Your task to perform on an android device: turn on the 12-hour format for clock Image 0: 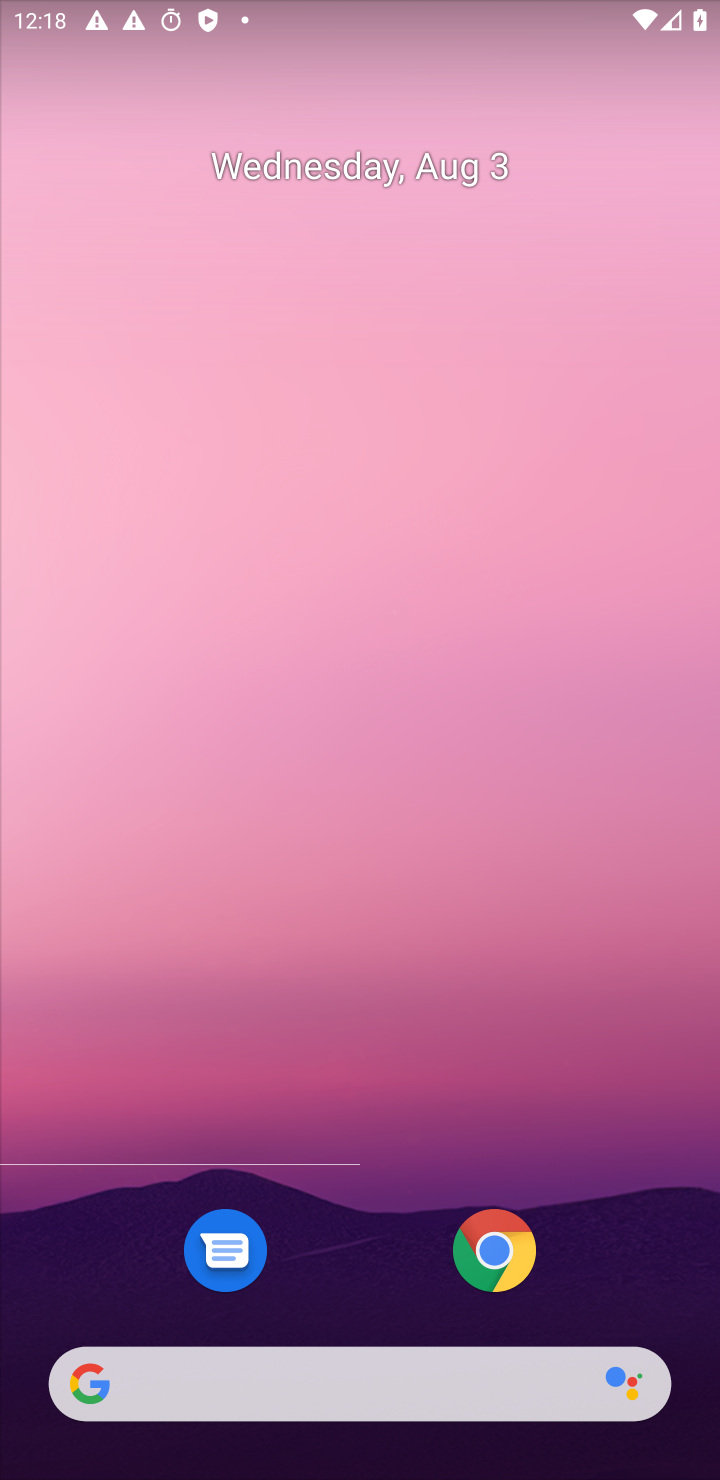
Step 0: press home button
Your task to perform on an android device: turn on the 12-hour format for clock Image 1: 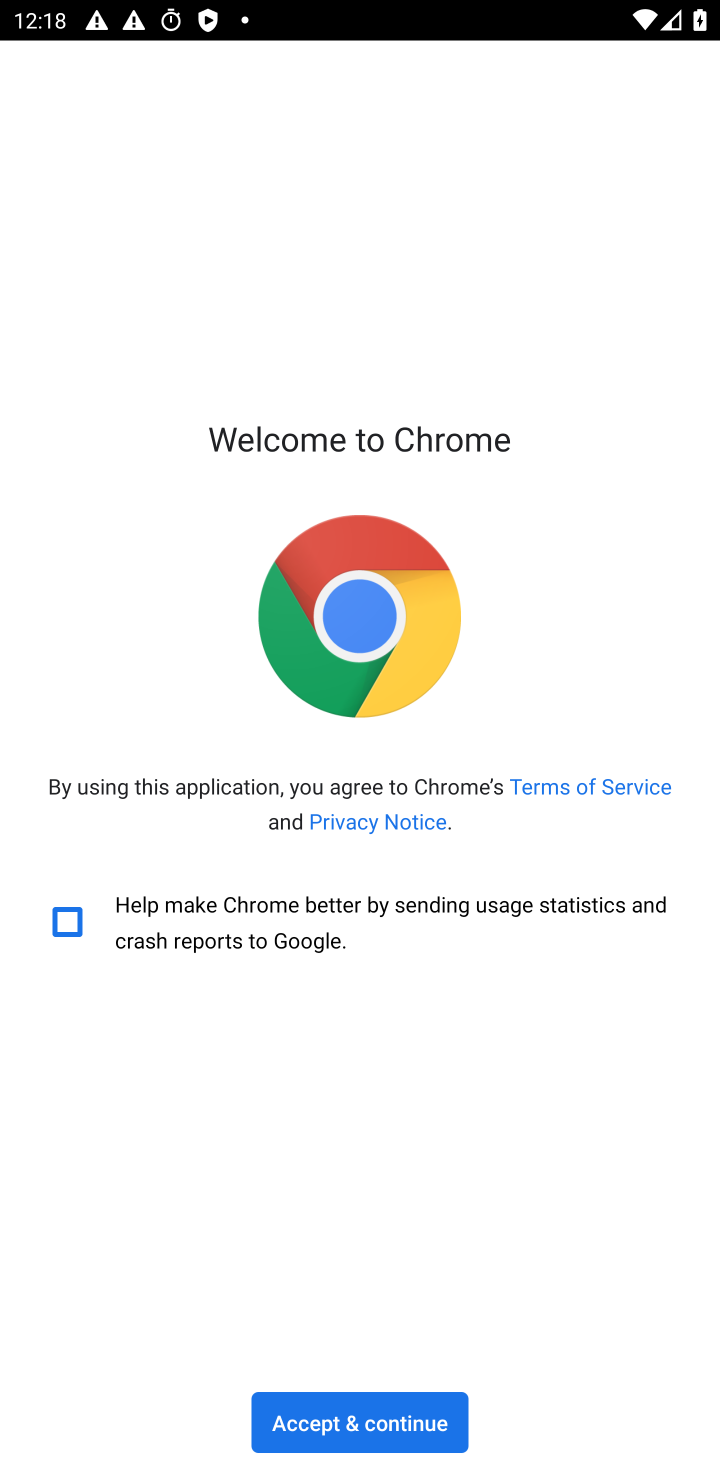
Step 1: click (336, 1396)
Your task to perform on an android device: turn on the 12-hour format for clock Image 2: 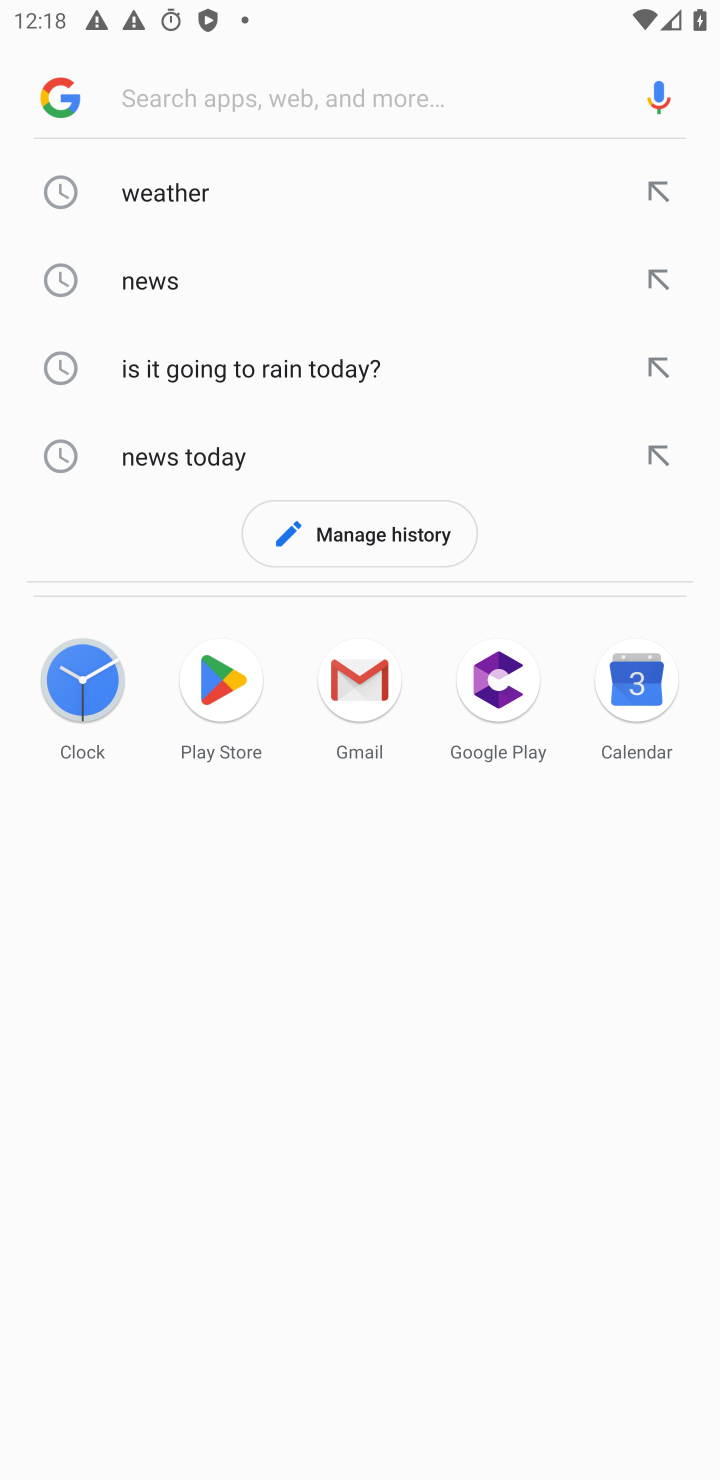
Step 2: press back button
Your task to perform on an android device: turn on the 12-hour format for clock Image 3: 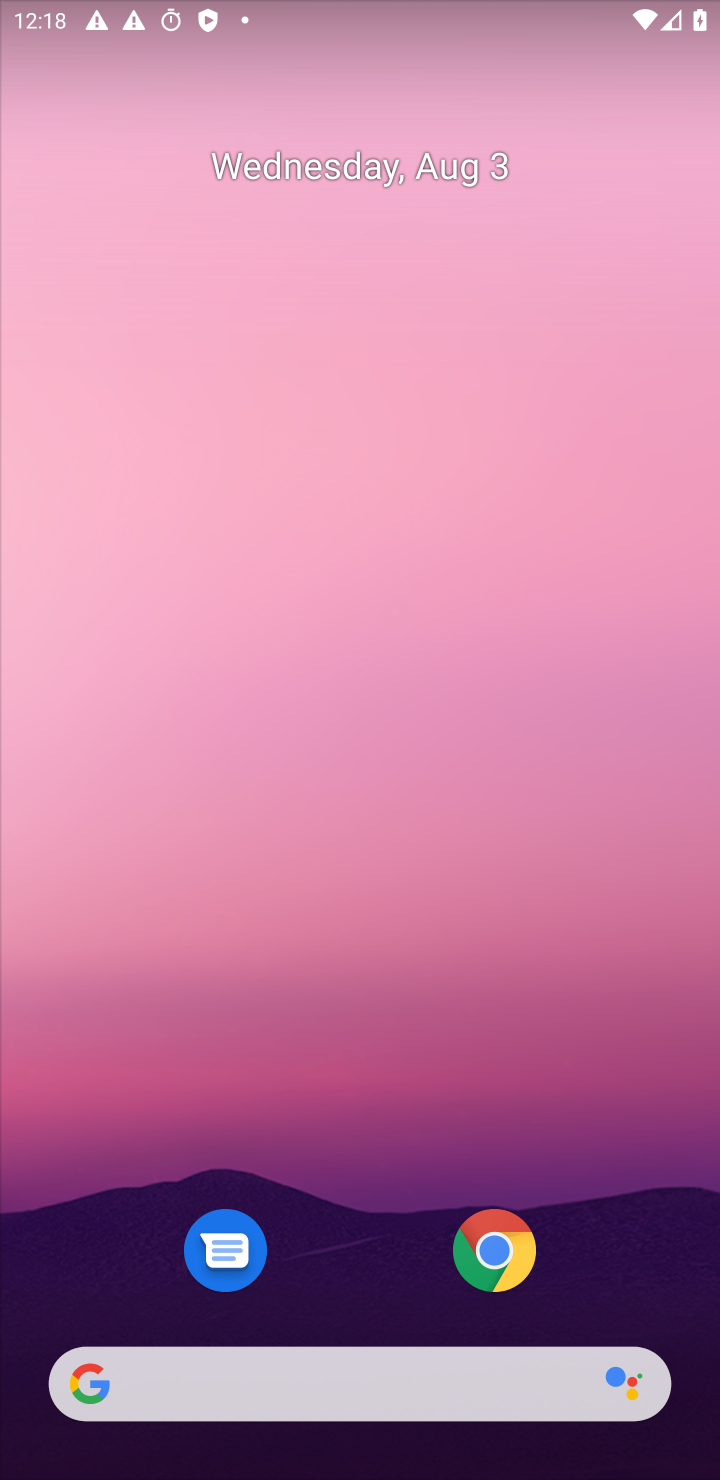
Step 3: drag from (414, 1132) to (409, 98)
Your task to perform on an android device: turn on the 12-hour format for clock Image 4: 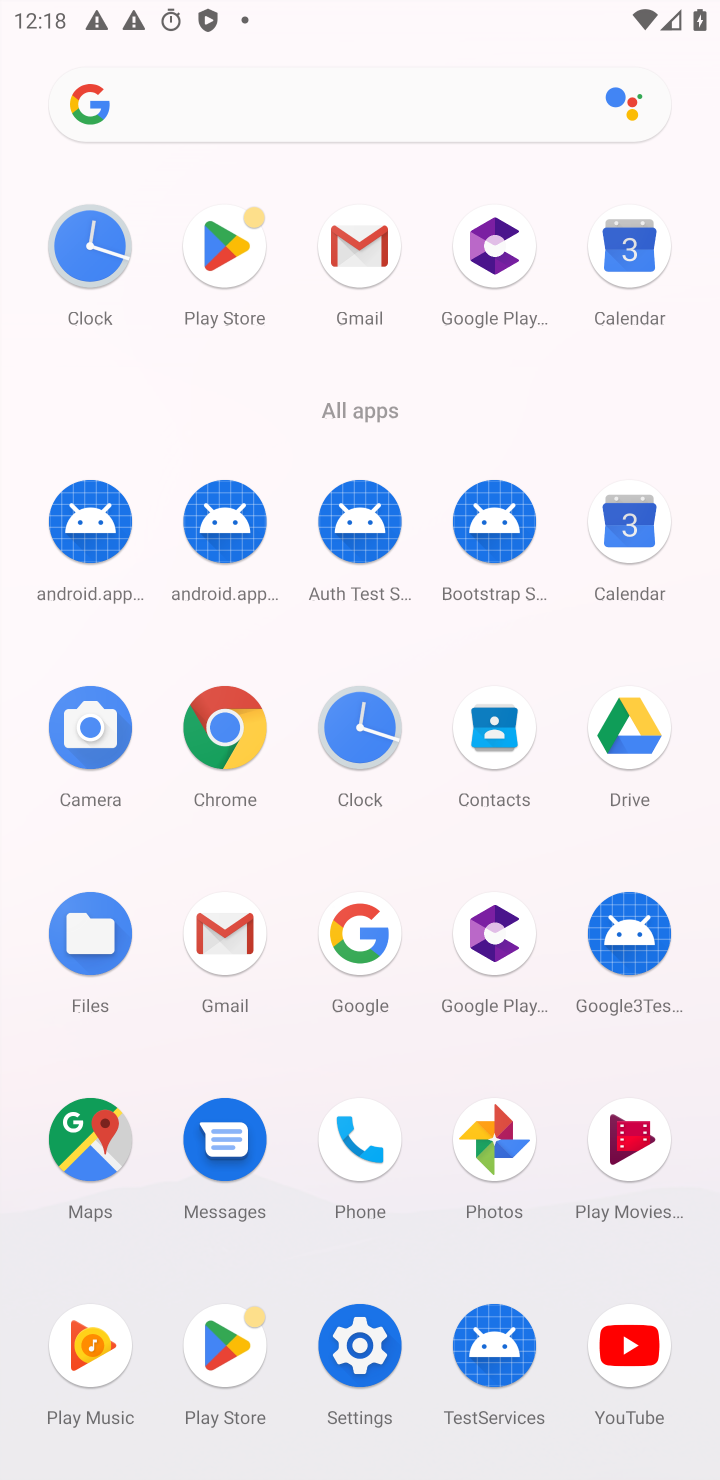
Step 4: click (354, 730)
Your task to perform on an android device: turn on the 12-hour format for clock Image 5: 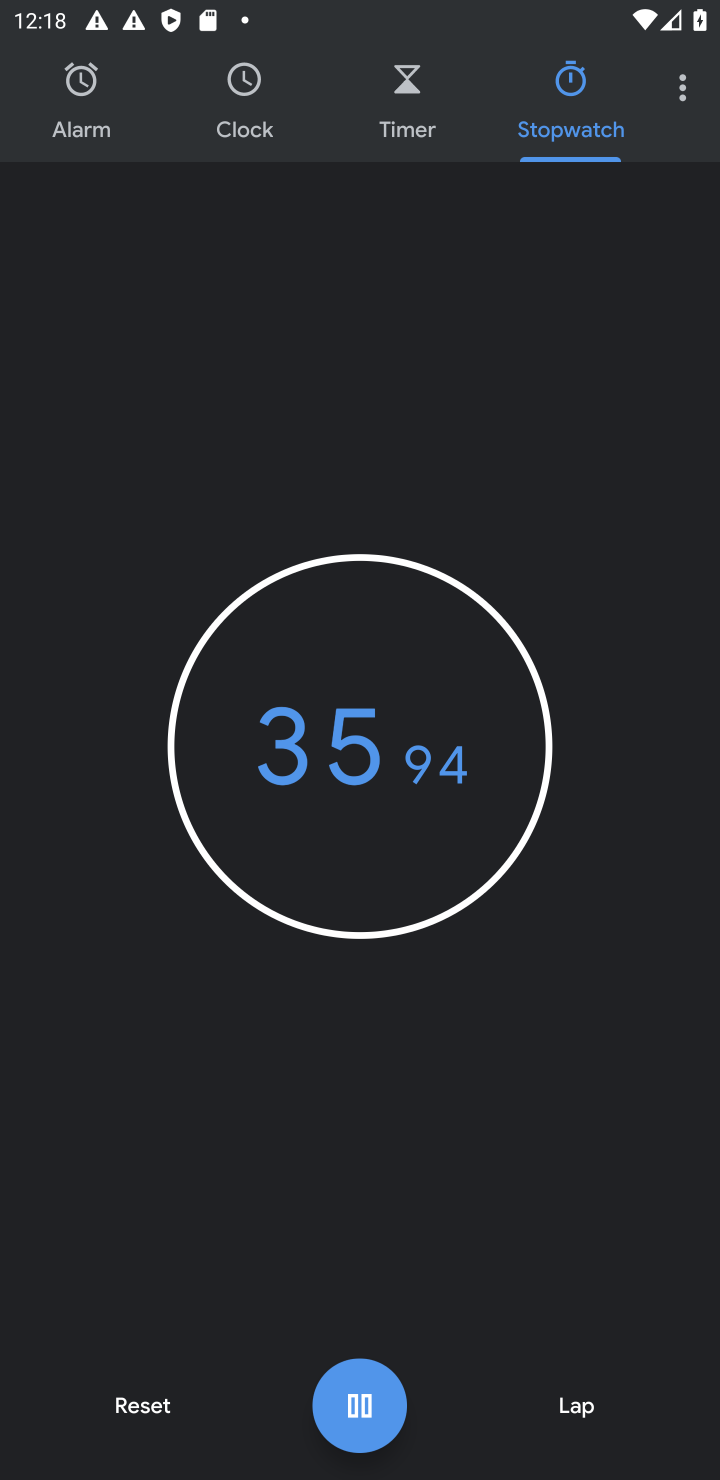
Step 5: click (670, 82)
Your task to perform on an android device: turn on the 12-hour format for clock Image 6: 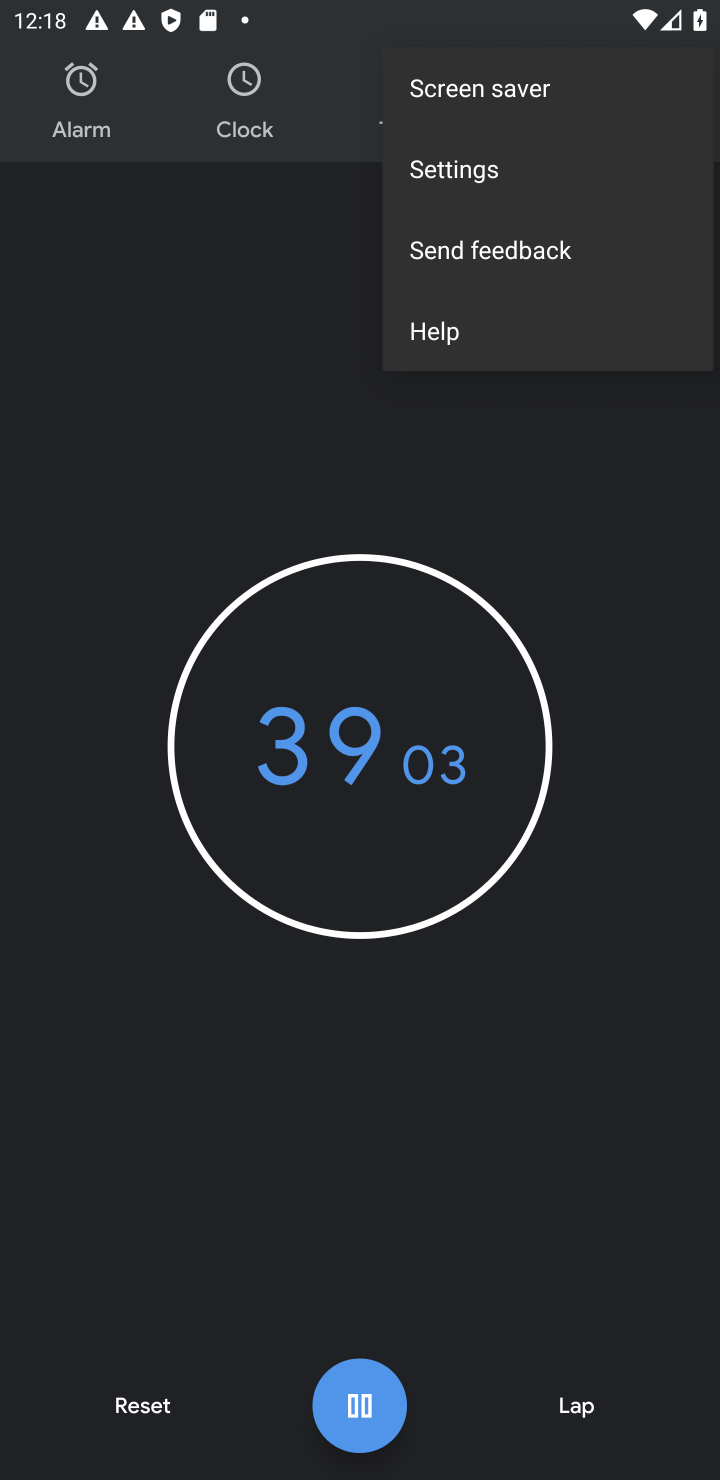
Step 6: click (496, 182)
Your task to perform on an android device: turn on the 12-hour format for clock Image 7: 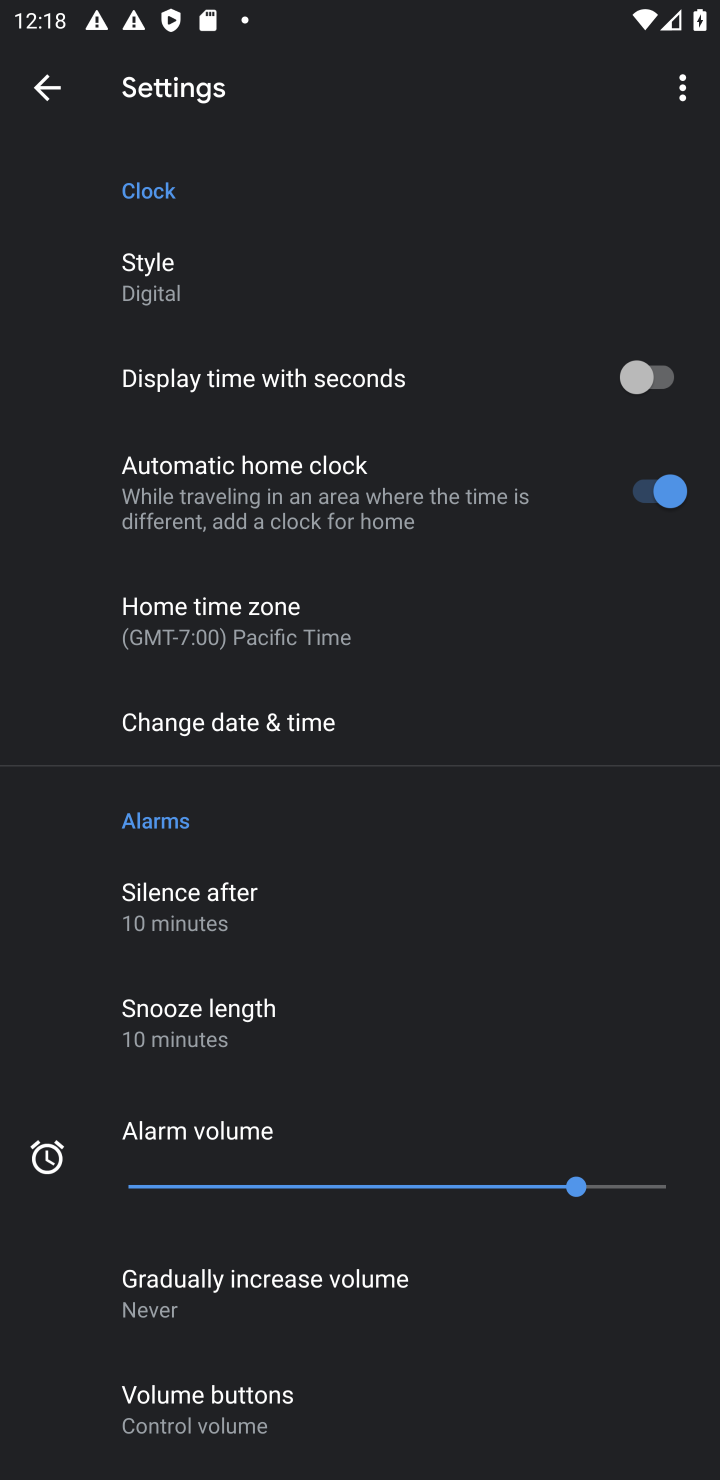
Step 7: click (245, 719)
Your task to perform on an android device: turn on the 12-hour format for clock Image 8: 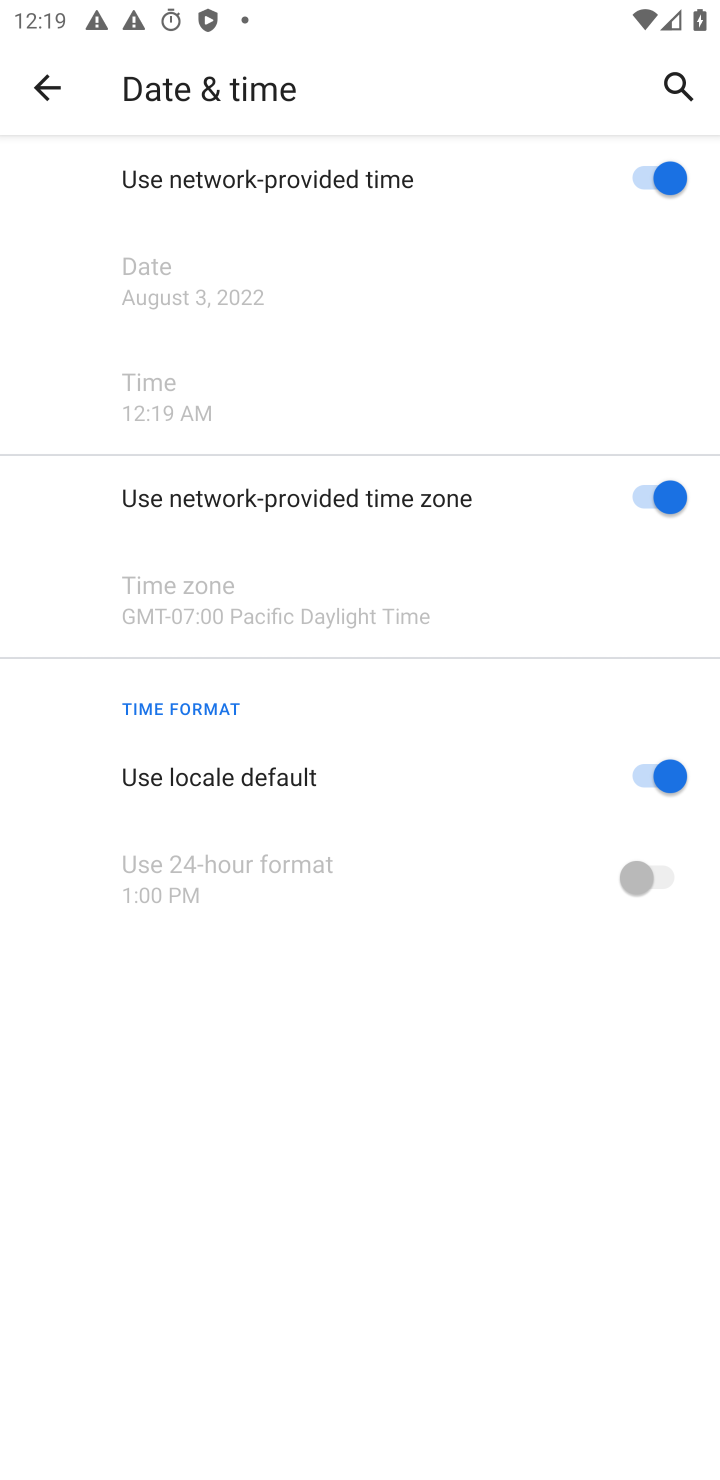
Step 8: task complete